Your task to perform on an android device: toggle wifi Image 0: 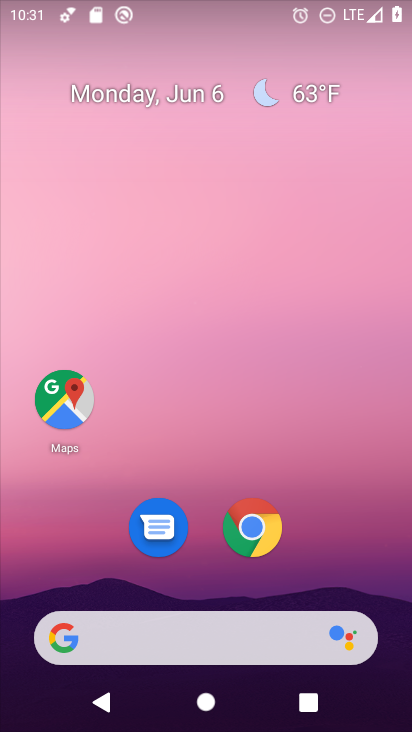
Step 0: drag from (324, 530) to (368, 191)
Your task to perform on an android device: toggle wifi Image 1: 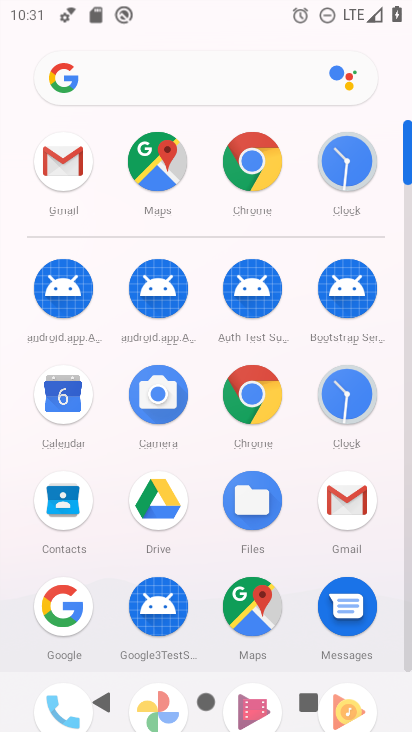
Step 1: drag from (196, 470) to (221, 221)
Your task to perform on an android device: toggle wifi Image 2: 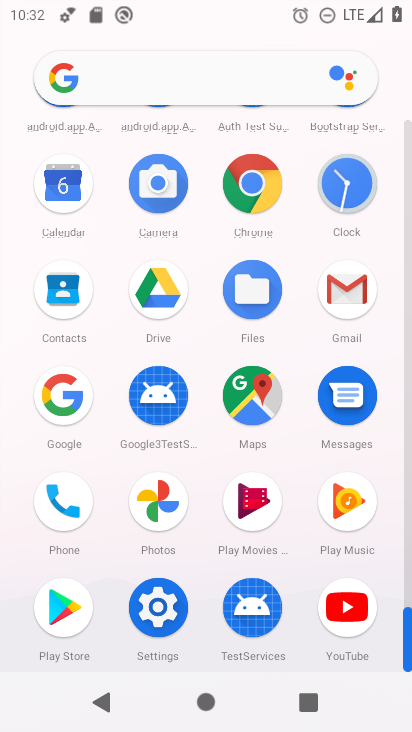
Step 2: click (167, 614)
Your task to perform on an android device: toggle wifi Image 3: 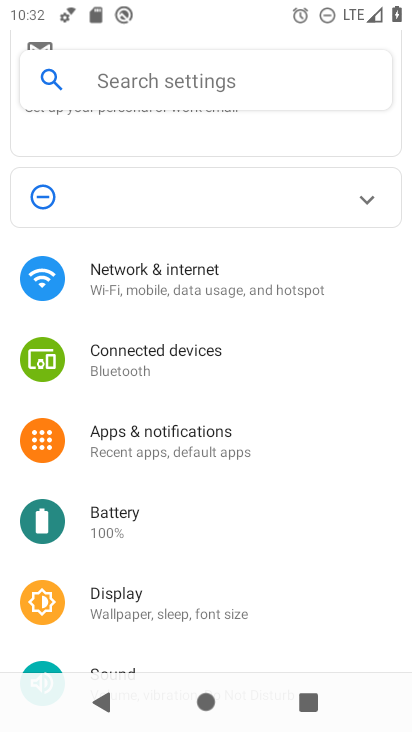
Step 3: drag from (325, 516) to (328, 392)
Your task to perform on an android device: toggle wifi Image 4: 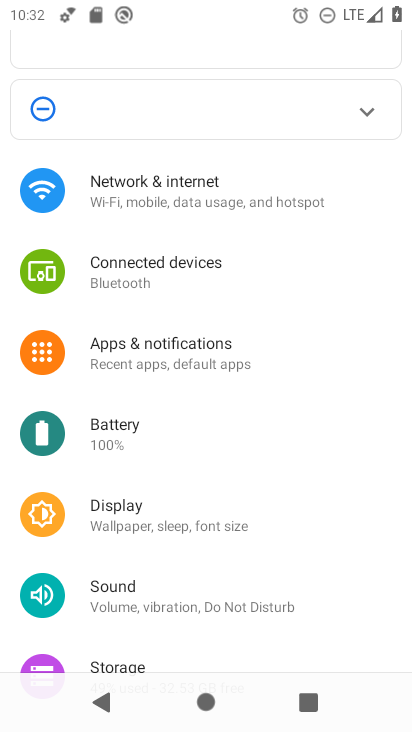
Step 4: click (269, 198)
Your task to perform on an android device: toggle wifi Image 5: 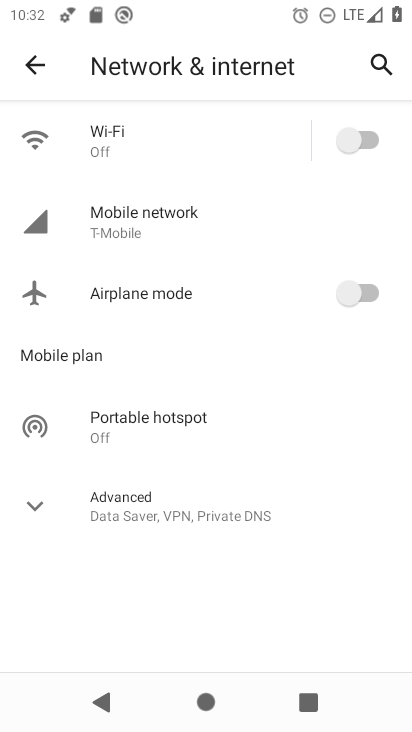
Step 5: click (352, 155)
Your task to perform on an android device: toggle wifi Image 6: 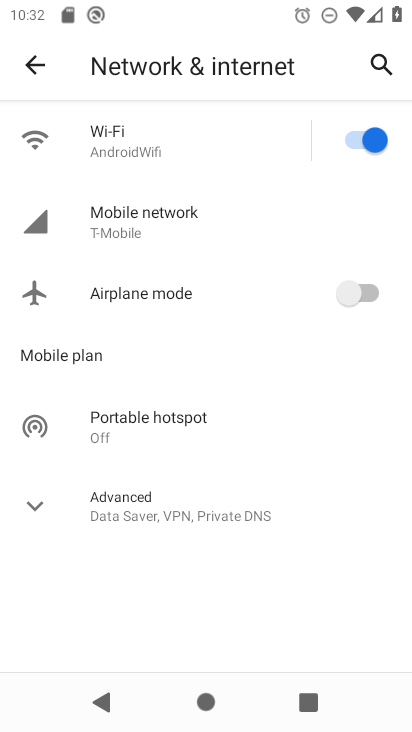
Step 6: task complete